Your task to perform on an android device: toggle priority inbox in the gmail app Image 0: 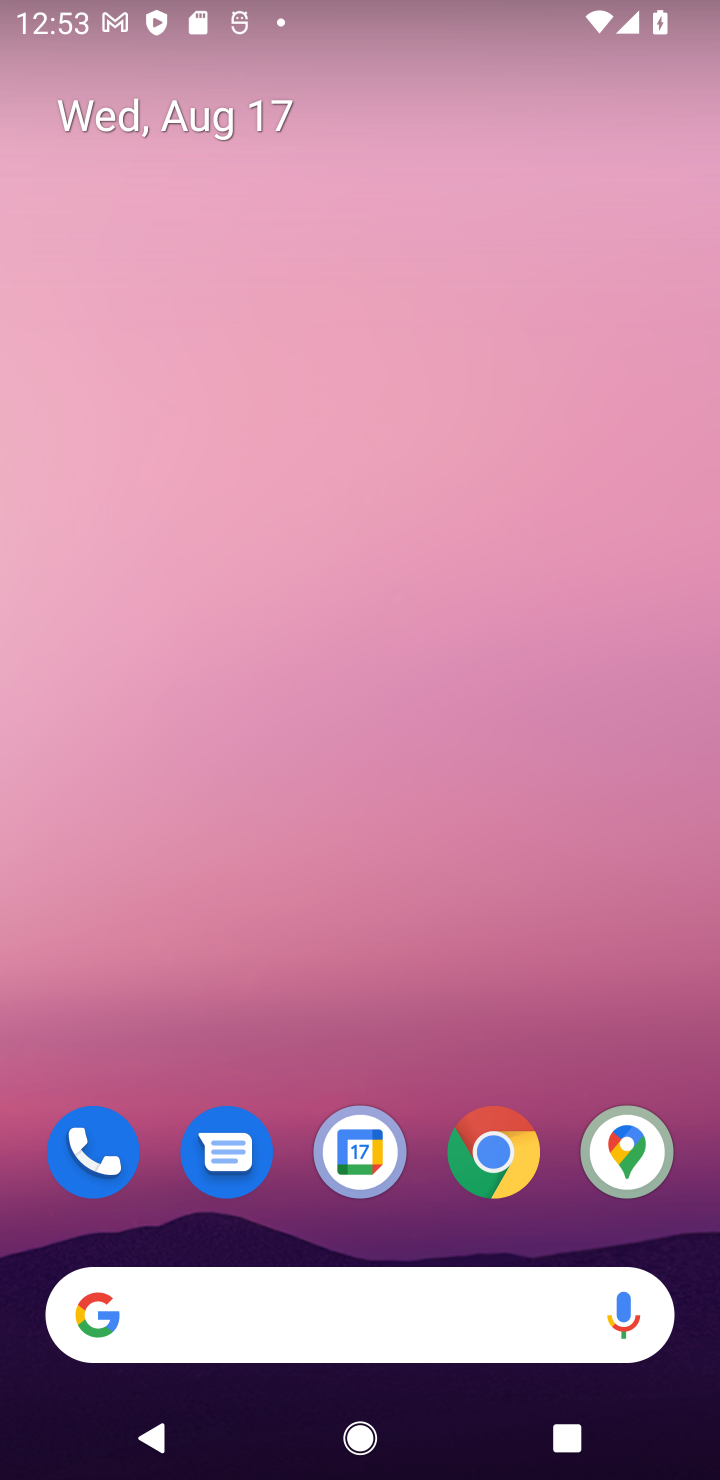
Step 0: drag from (547, 1110) to (288, 35)
Your task to perform on an android device: toggle priority inbox in the gmail app Image 1: 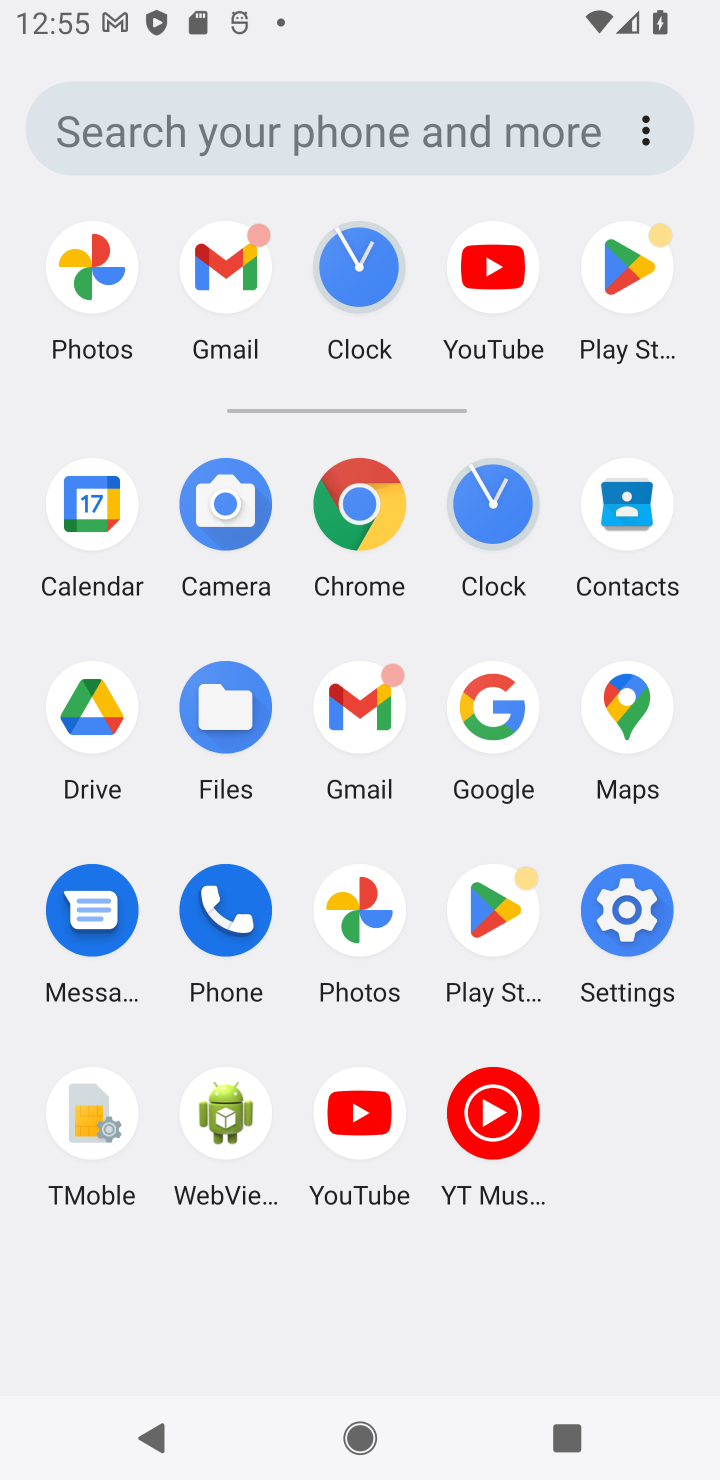
Step 1: click (356, 684)
Your task to perform on an android device: toggle priority inbox in the gmail app Image 2: 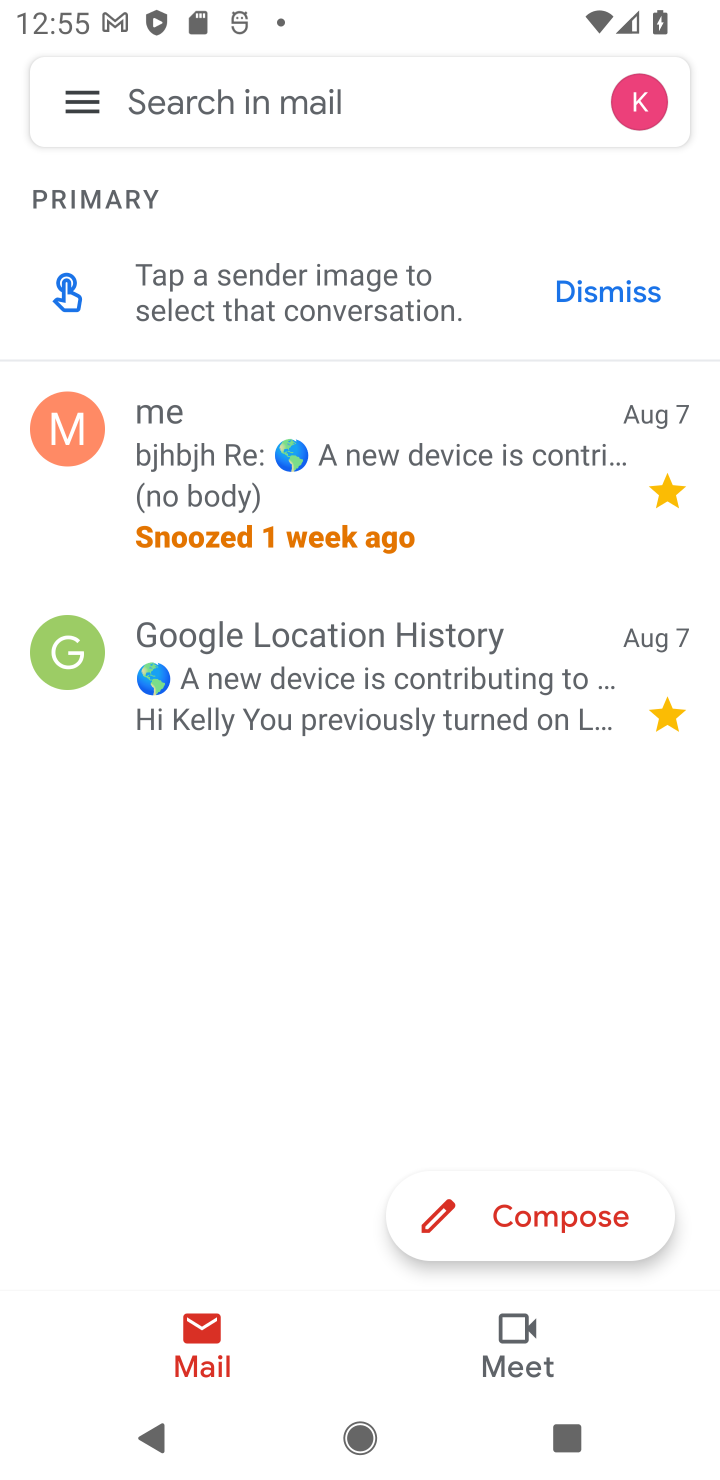
Step 2: click (107, 112)
Your task to perform on an android device: toggle priority inbox in the gmail app Image 3: 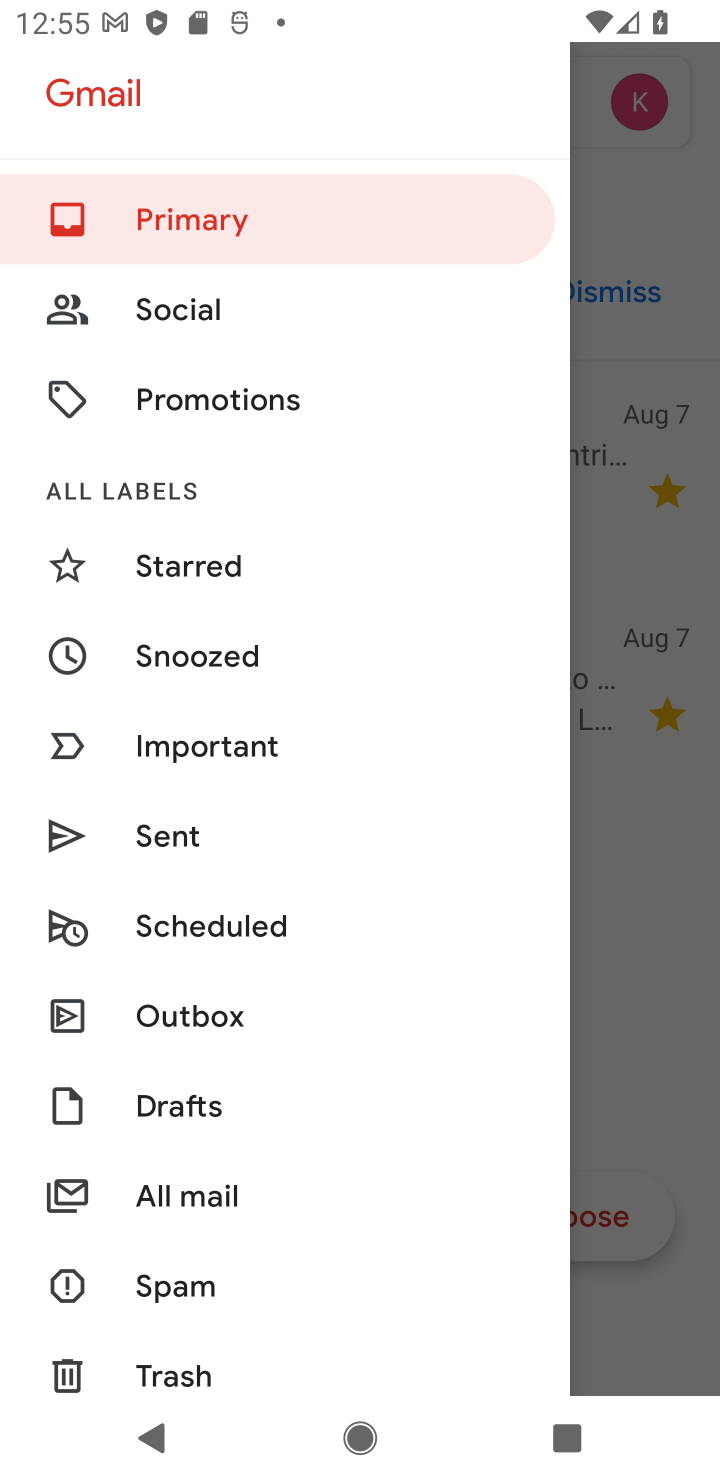
Step 3: drag from (310, 984) to (232, 203)
Your task to perform on an android device: toggle priority inbox in the gmail app Image 4: 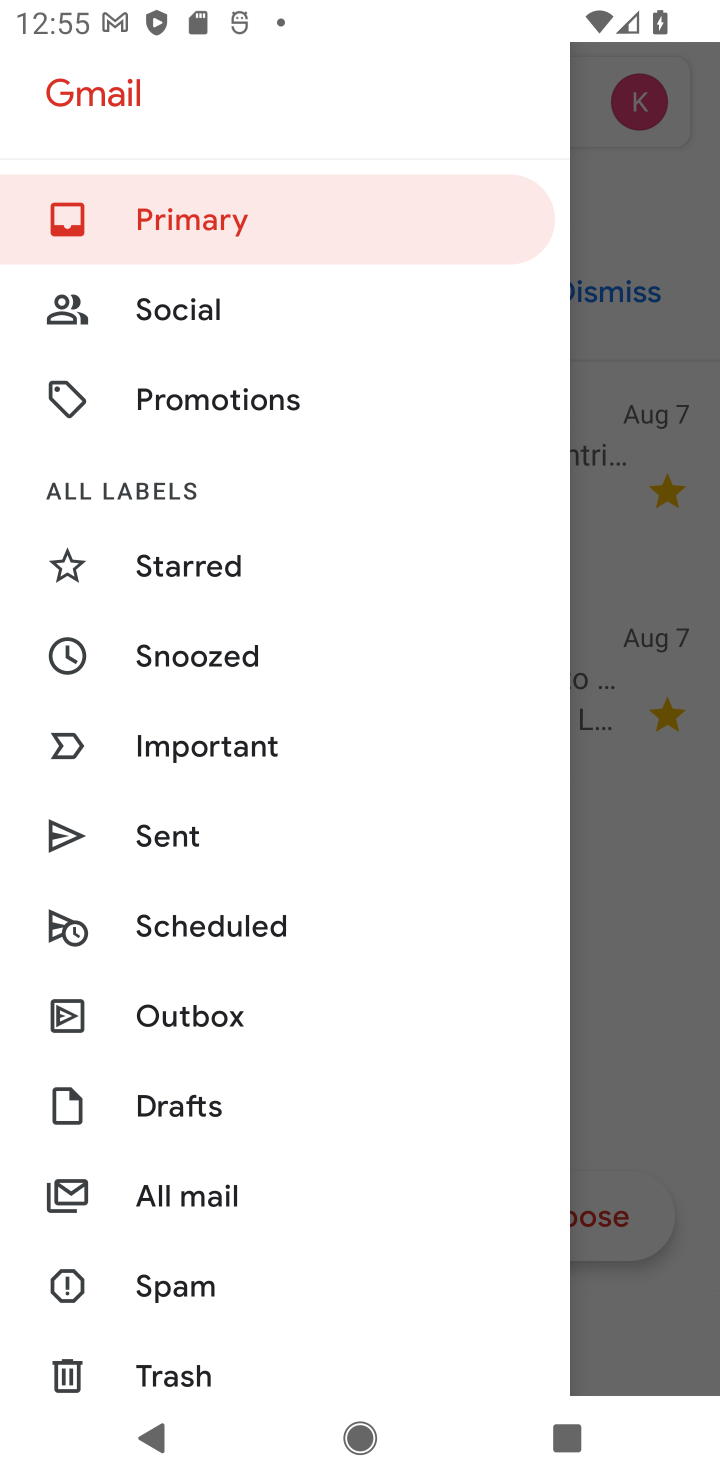
Step 4: drag from (206, 1323) to (160, 145)
Your task to perform on an android device: toggle priority inbox in the gmail app Image 5: 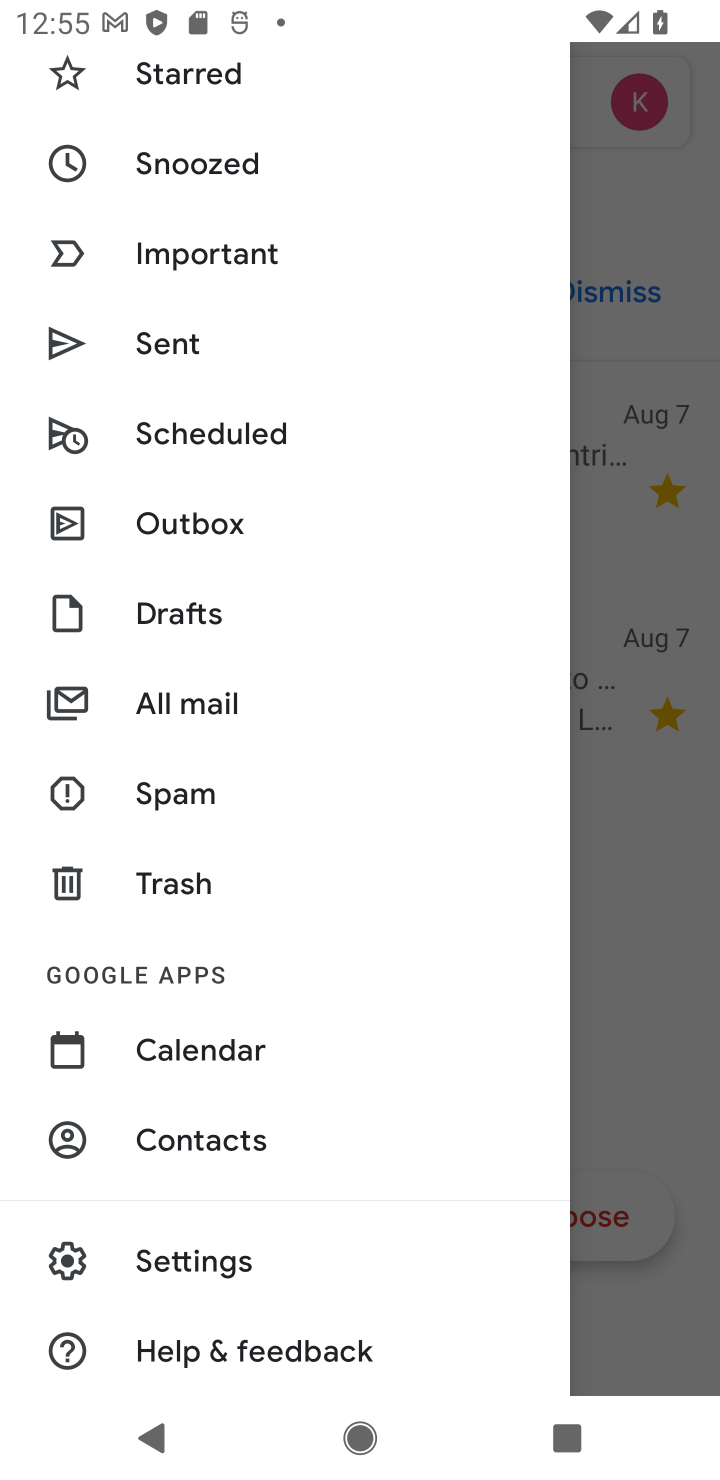
Step 5: click (194, 1280)
Your task to perform on an android device: toggle priority inbox in the gmail app Image 6: 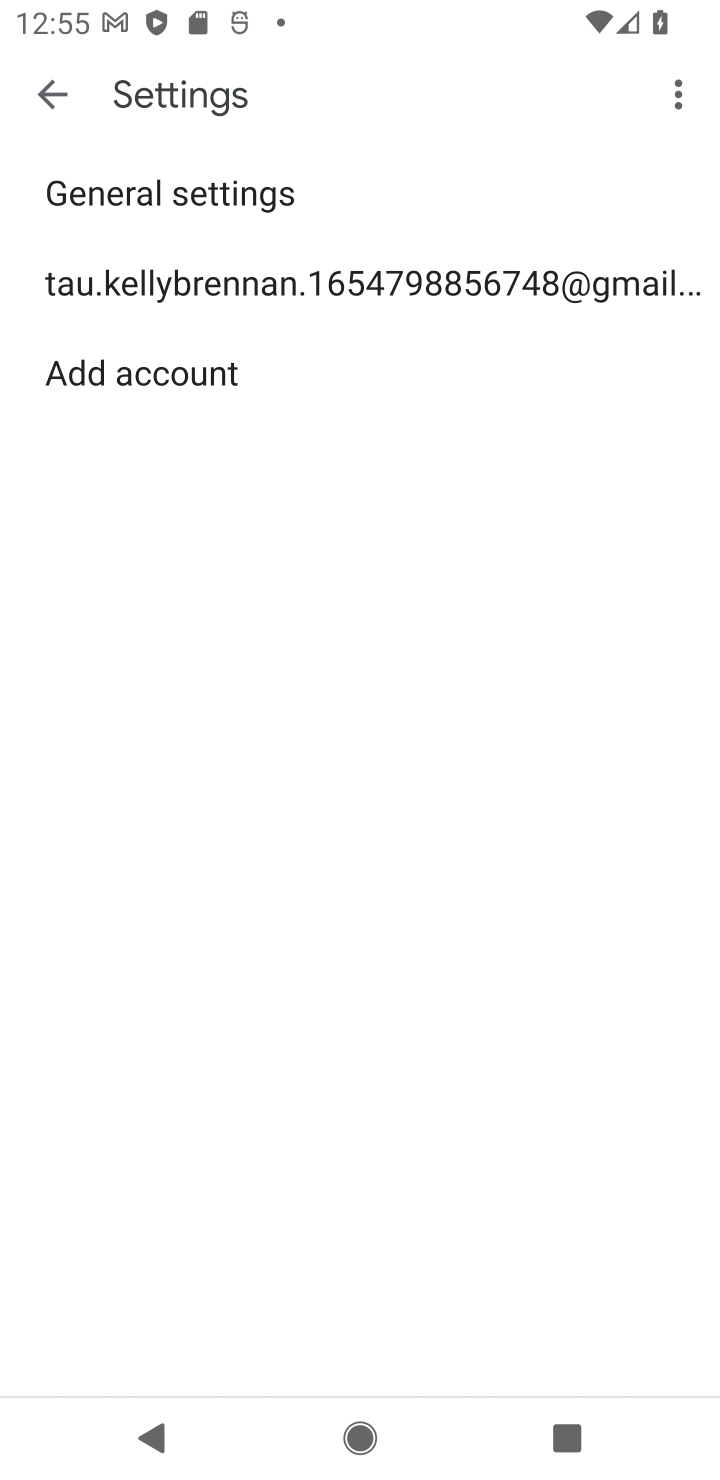
Step 6: click (144, 275)
Your task to perform on an android device: toggle priority inbox in the gmail app Image 7: 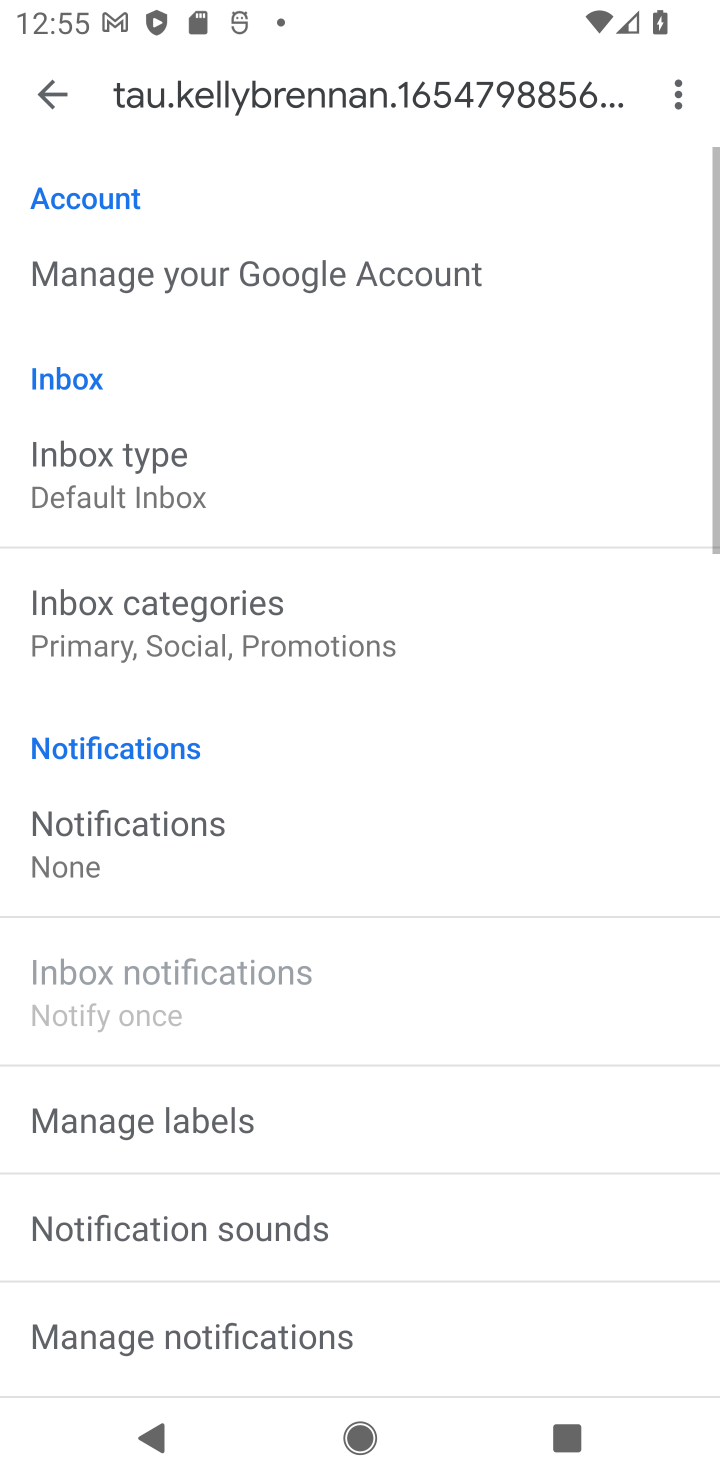
Step 7: click (196, 485)
Your task to perform on an android device: toggle priority inbox in the gmail app Image 8: 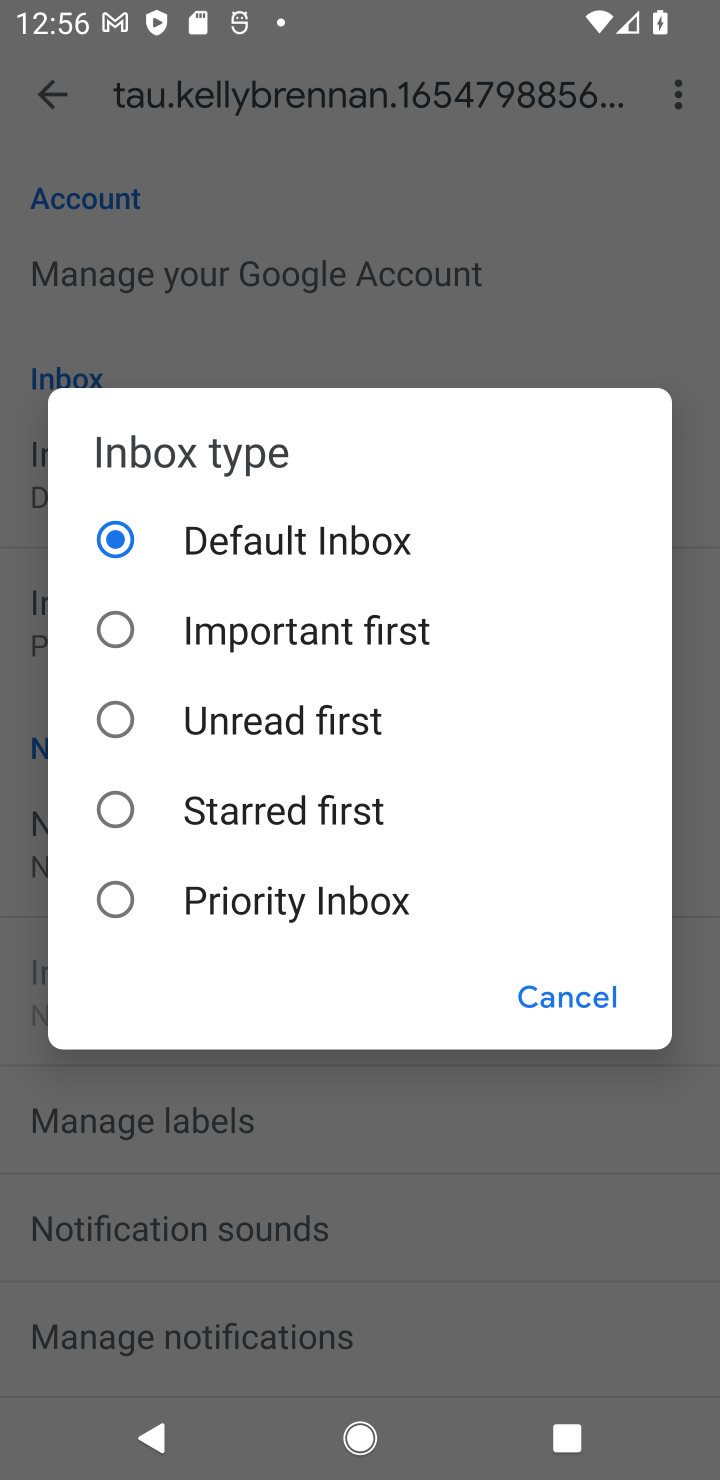
Step 8: click (122, 894)
Your task to perform on an android device: toggle priority inbox in the gmail app Image 9: 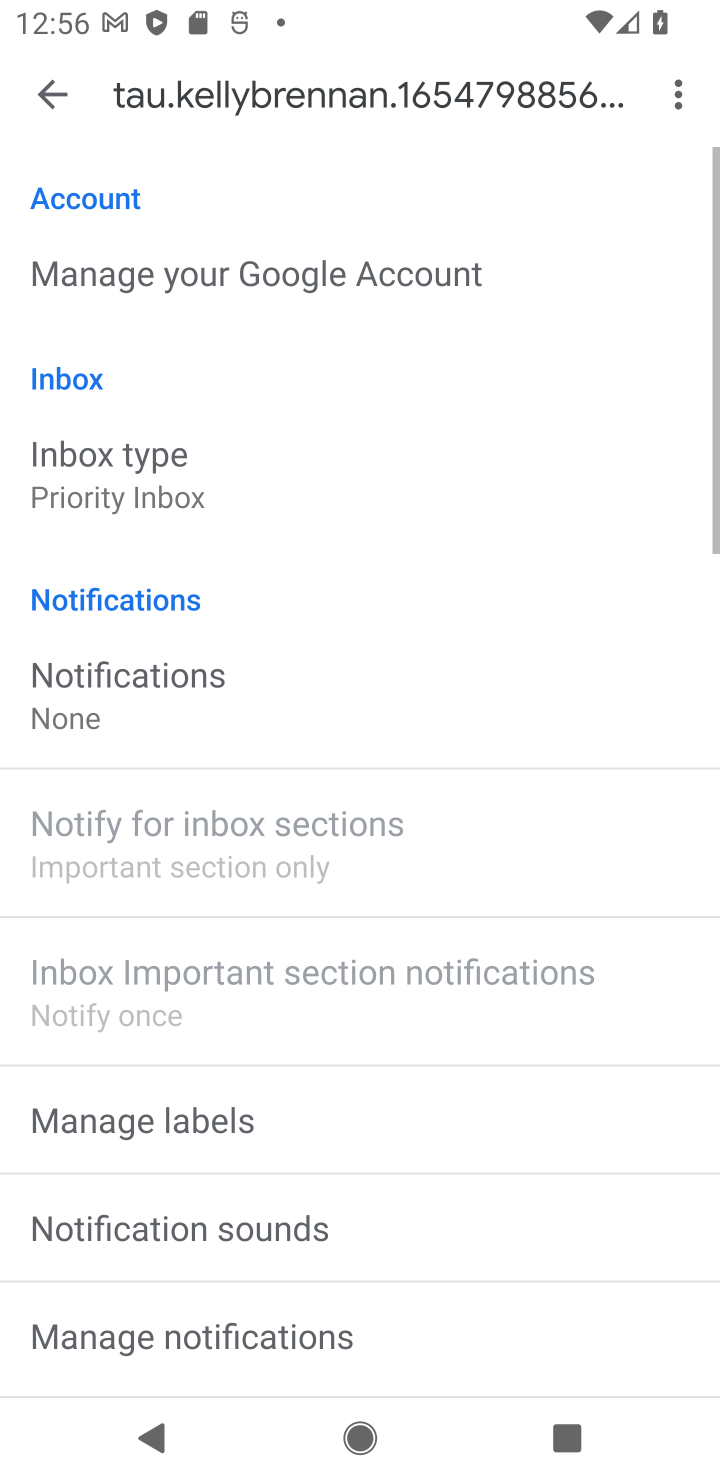
Step 9: click (170, 467)
Your task to perform on an android device: toggle priority inbox in the gmail app Image 10: 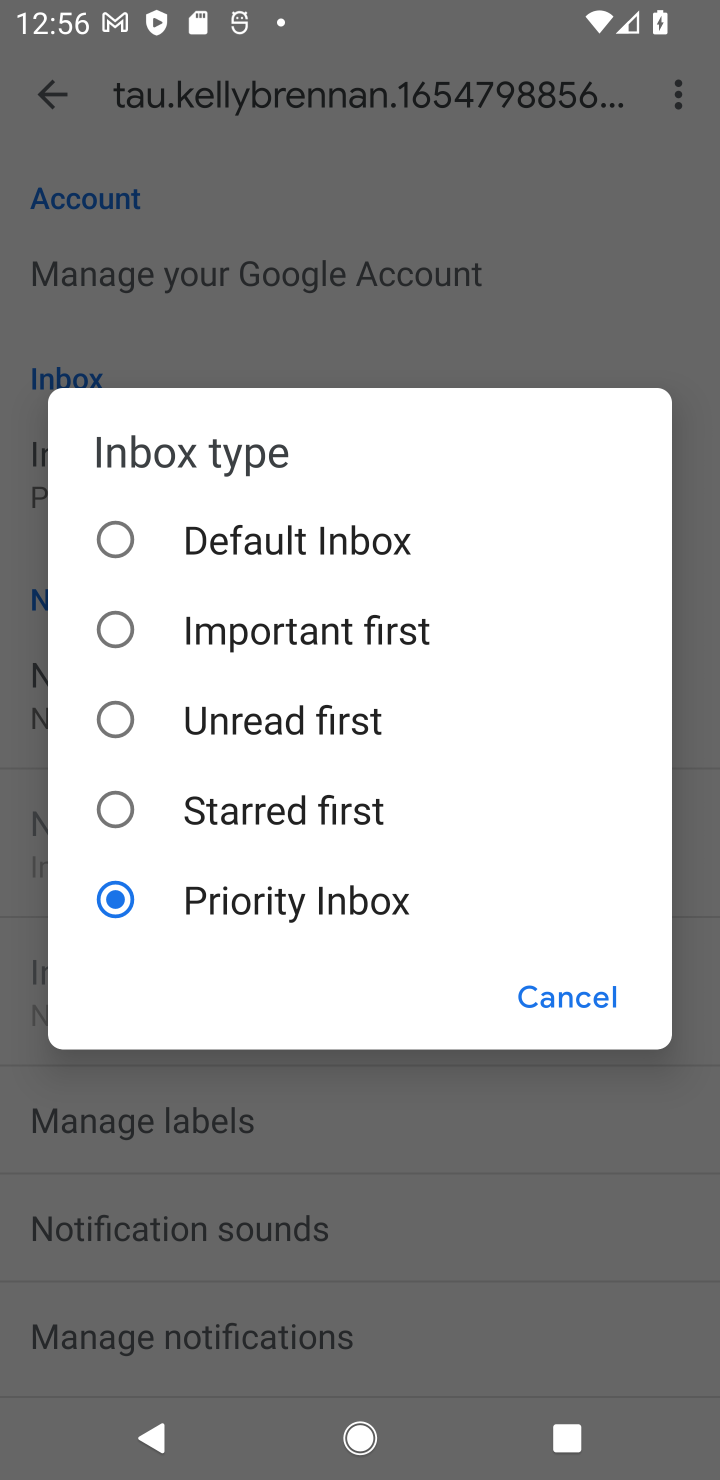
Step 10: click (224, 638)
Your task to perform on an android device: toggle priority inbox in the gmail app Image 11: 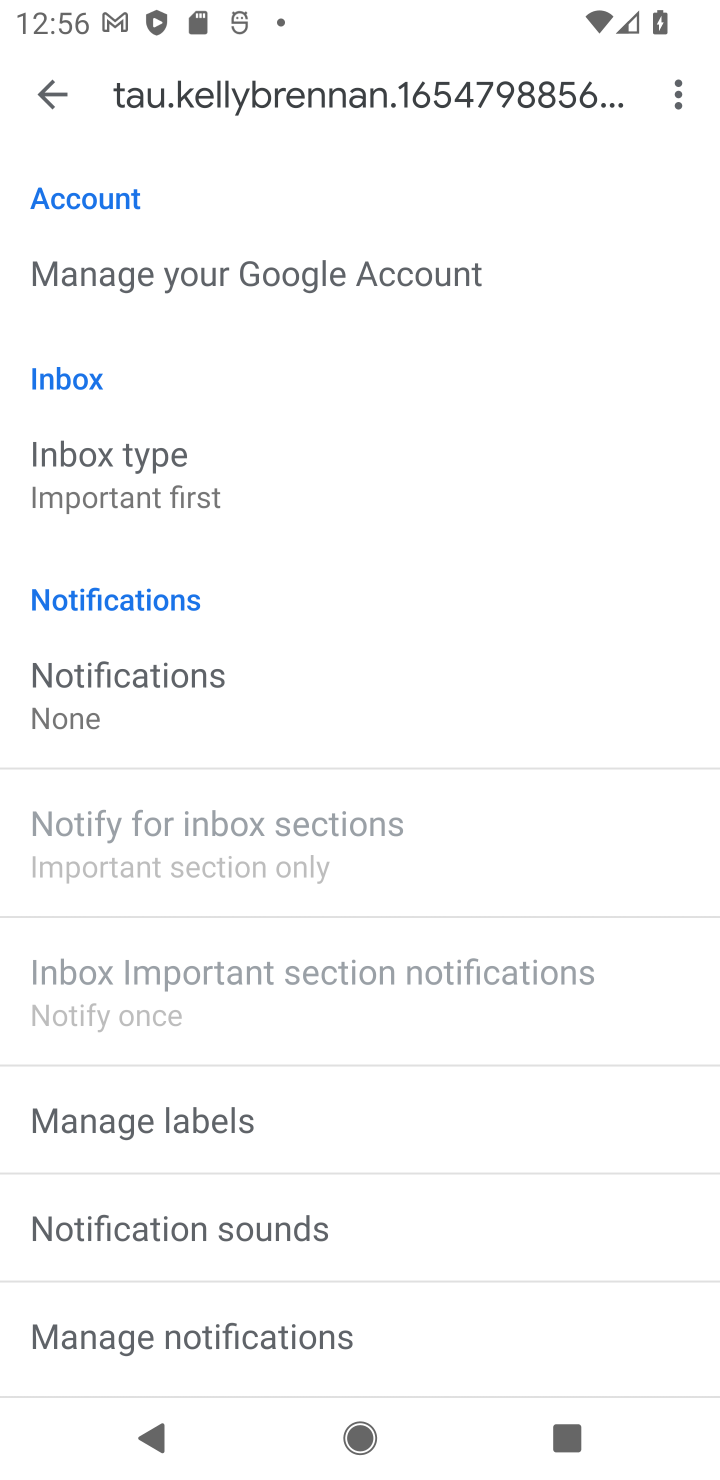
Step 11: task complete